Your task to perform on an android device: Open display settings Image 0: 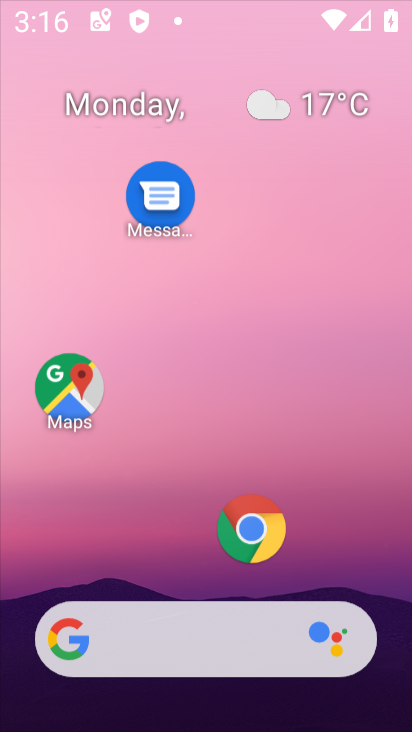
Step 0: press home button
Your task to perform on an android device: Open display settings Image 1: 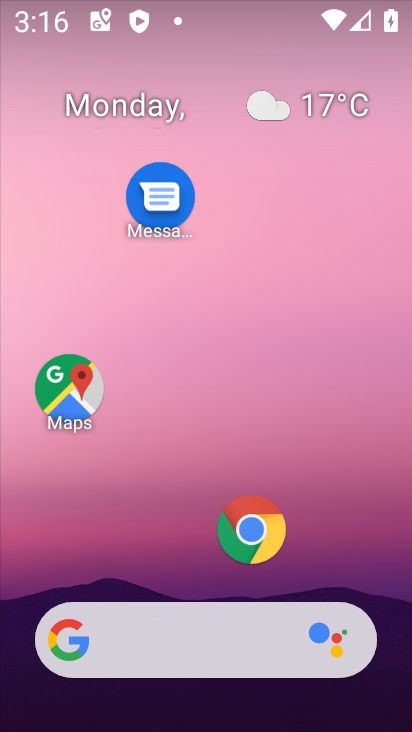
Step 1: drag from (200, 588) to (237, 6)
Your task to perform on an android device: Open display settings Image 2: 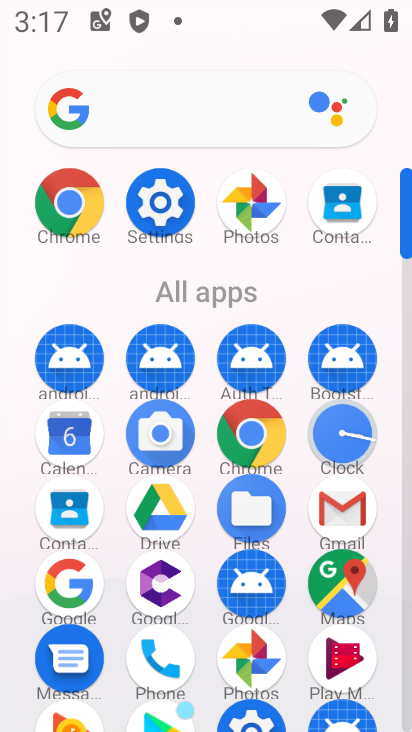
Step 2: click (162, 192)
Your task to perform on an android device: Open display settings Image 3: 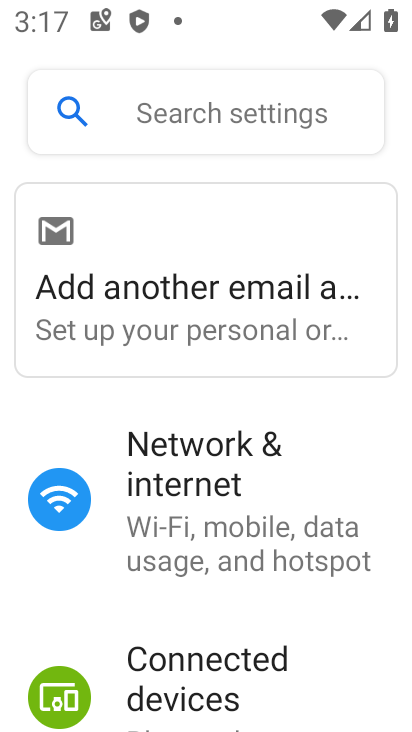
Step 3: drag from (275, 636) to (306, 118)
Your task to perform on an android device: Open display settings Image 4: 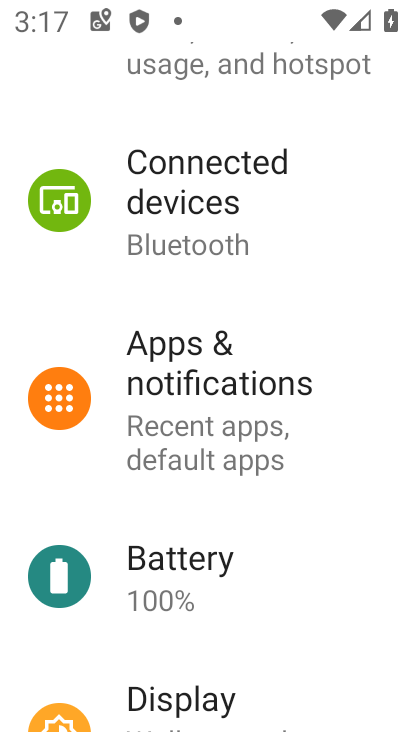
Step 4: click (249, 700)
Your task to perform on an android device: Open display settings Image 5: 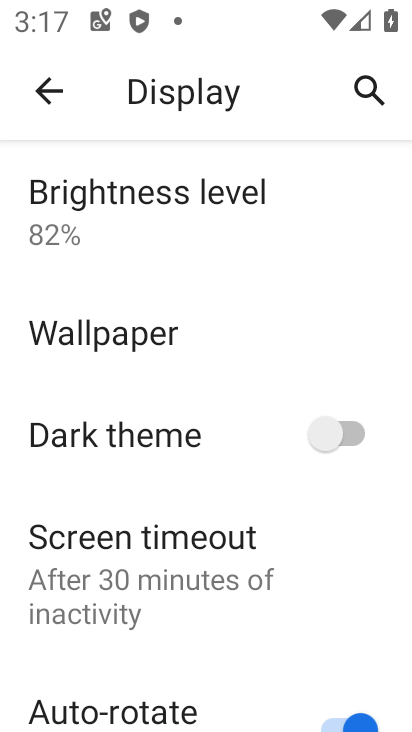
Step 5: drag from (207, 664) to (242, 223)
Your task to perform on an android device: Open display settings Image 6: 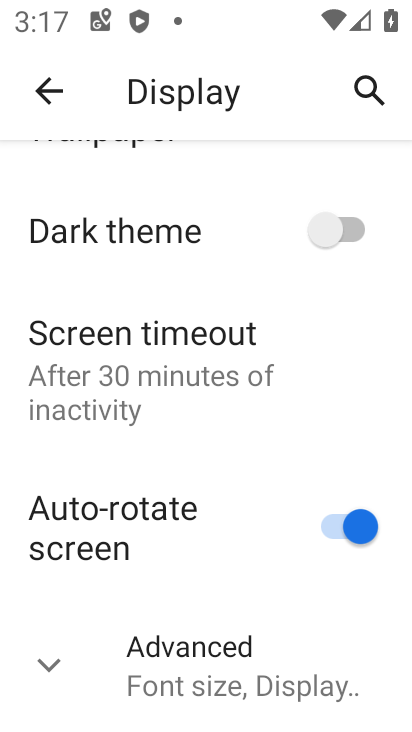
Step 6: click (45, 658)
Your task to perform on an android device: Open display settings Image 7: 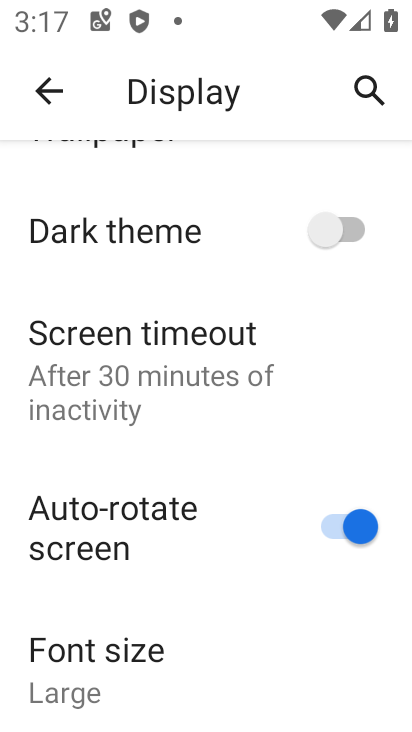
Step 7: task complete